Your task to perform on an android device: Go to display settings Image 0: 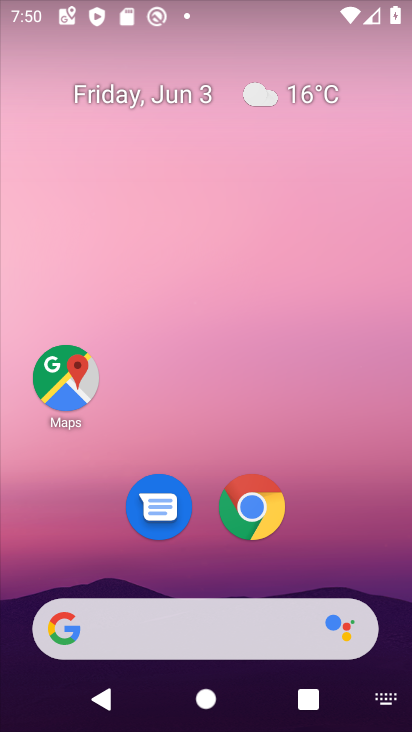
Step 0: drag from (307, 276) to (192, 4)
Your task to perform on an android device: Go to display settings Image 1: 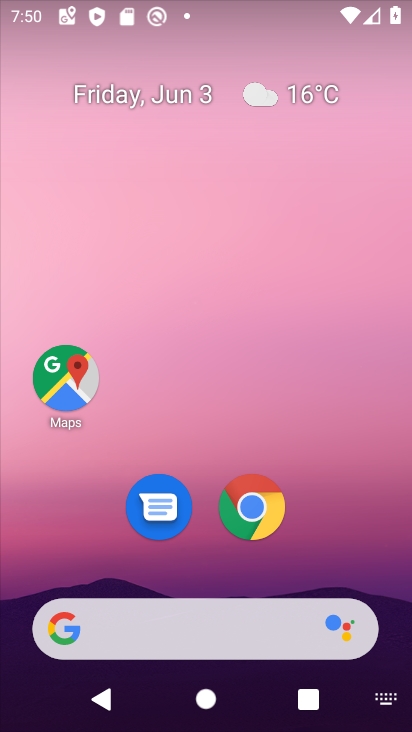
Step 1: drag from (341, 581) to (128, 17)
Your task to perform on an android device: Go to display settings Image 2: 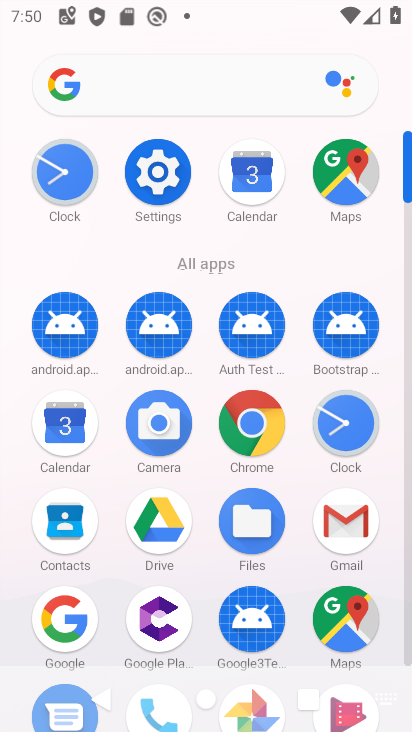
Step 2: click (179, 180)
Your task to perform on an android device: Go to display settings Image 3: 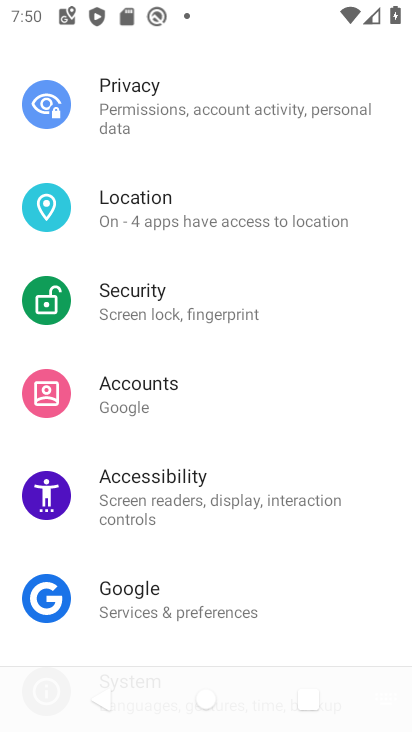
Step 3: drag from (257, 122) to (219, 665)
Your task to perform on an android device: Go to display settings Image 4: 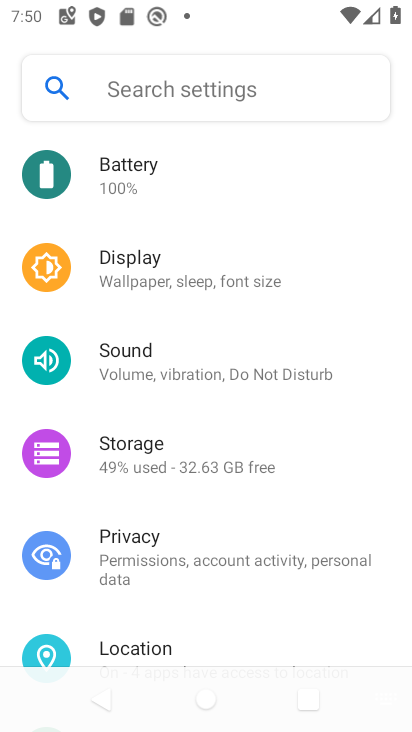
Step 4: click (145, 282)
Your task to perform on an android device: Go to display settings Image 5: 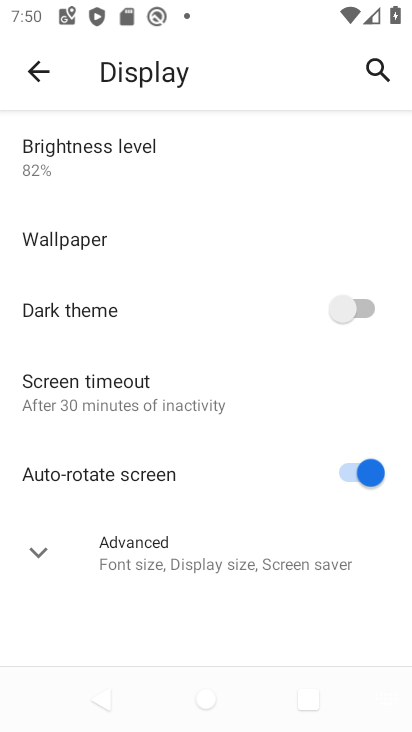
Step 5: task complete